Your task to perform on an android device: allow cookies in the chrome app Image 0: 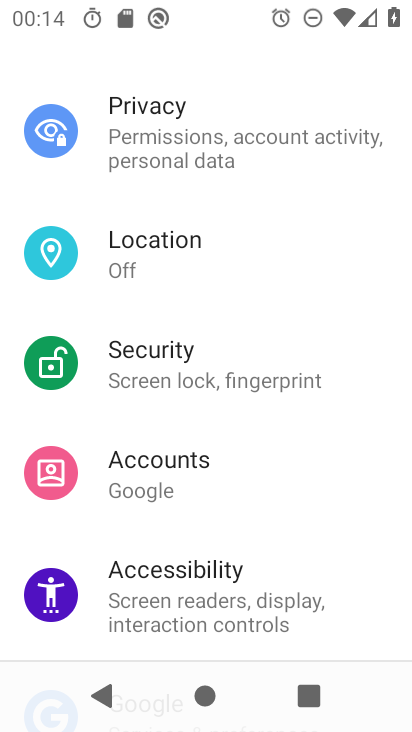
Step 0: press home button
Your task to perform on an android device: allow cookies in the chrome app Image 1: 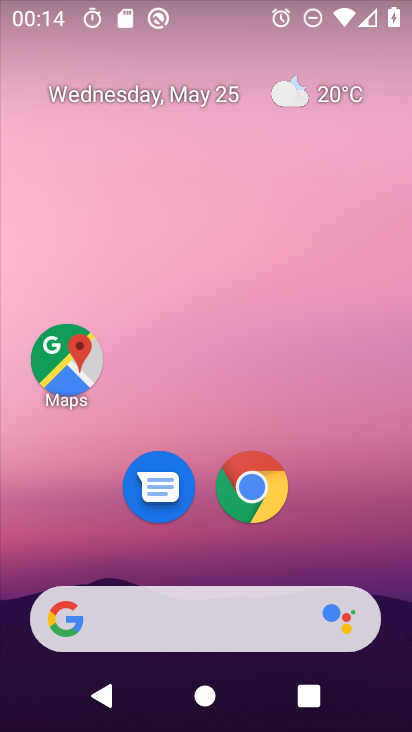
Step 1: click (251, 490)
Your task to perform on an android device: allow cookies in the chrome app Image 2: 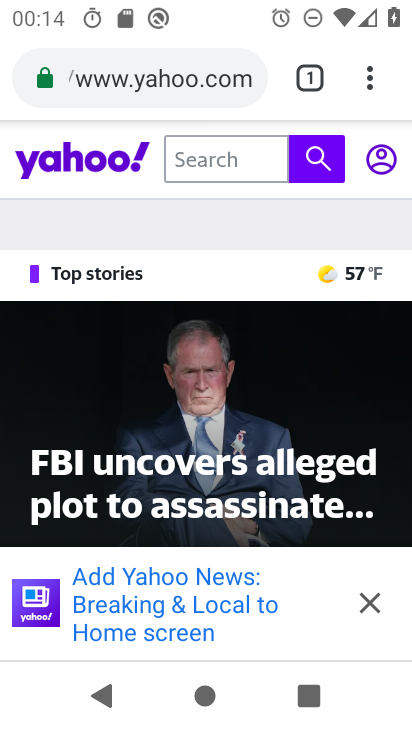
Step 2: click (368, 83)
Your task to perform on an android device: allow cookies in the chrome app Image 3: 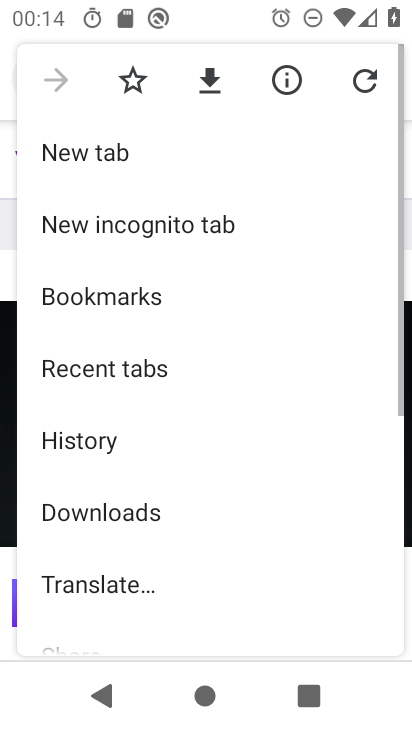
Step 3: drag from (171, 474) to (174, 106)
Your task to perform on an android device: allow cookies in the chrome app Image 4: 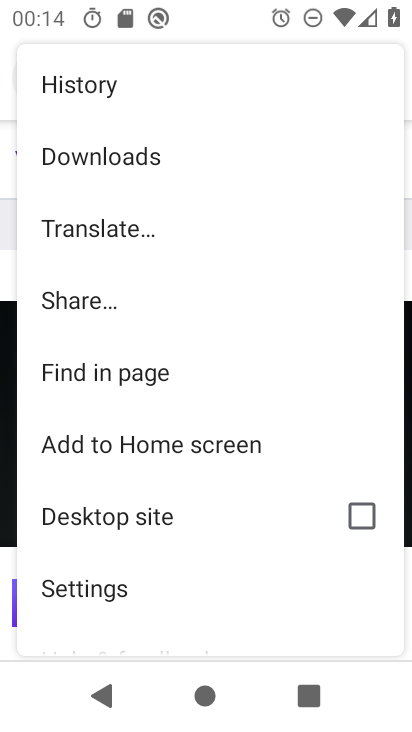
Step 4: click (120, 590)
Your task to perform on an android device: allow cookies in the chrome app Image 5: 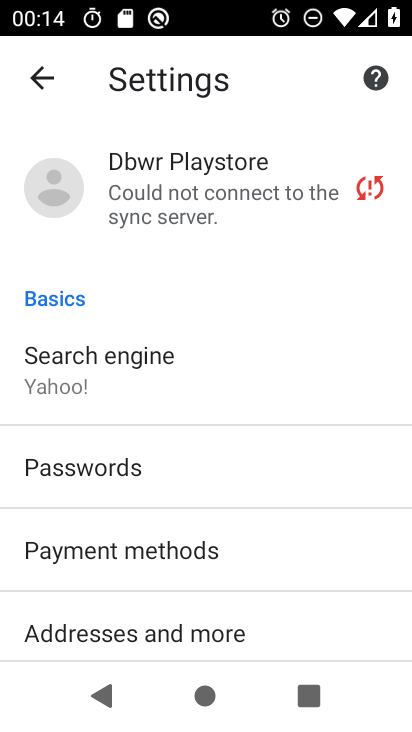
Step 5: drag from (256, 534) to (233, 156)
Your task to perform on an android device: allow cookies in the chrome app Image 6: 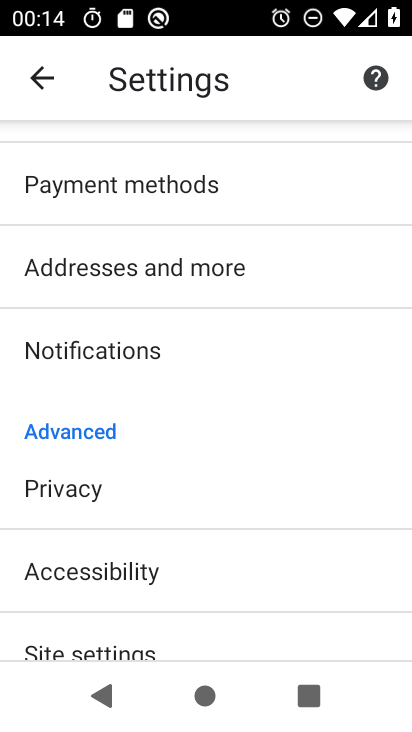
Step 6: drag from (197, 504) to (194, 151)
Your task to perform on an android device: allow cookies in the chrome app Image 7: 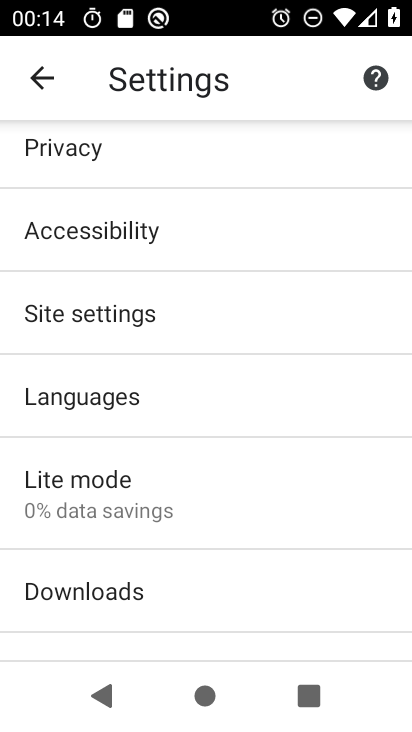
Step 7: click (134, 316)
Your task to perform on an android device: allow cookies in the chrome app Image 8: 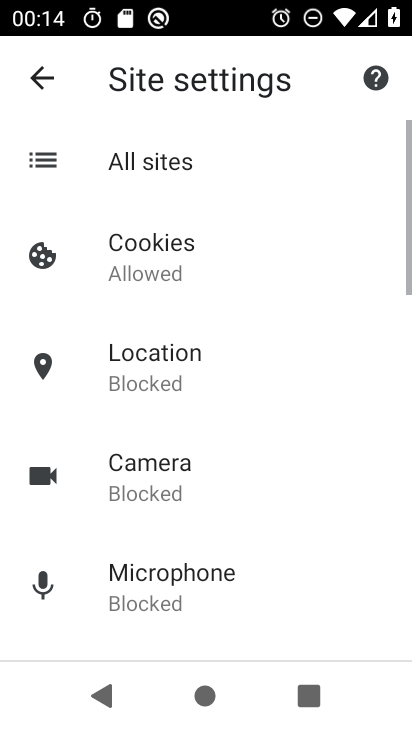
Step 8: click (143, 253)
Your task to perform on an android device: allow cookies in the chrome app Image 9: 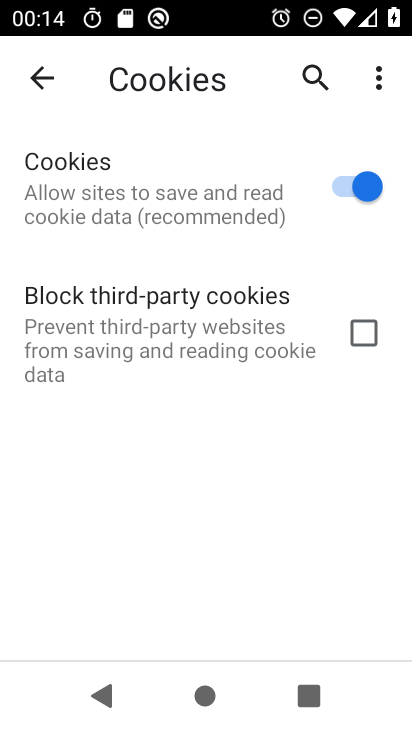
Step 9: task complete